Your task to perform on an android device: add a contact Image 0: 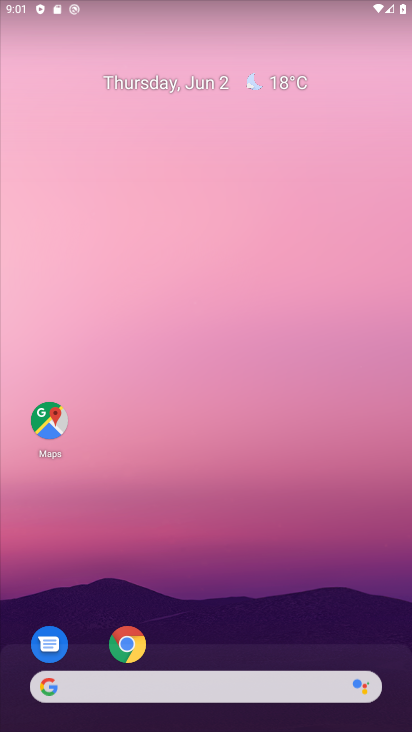
Step 0: drag from (184, 673) to (237, 302)
Your task to perform on an android device: add a contact Image 1: 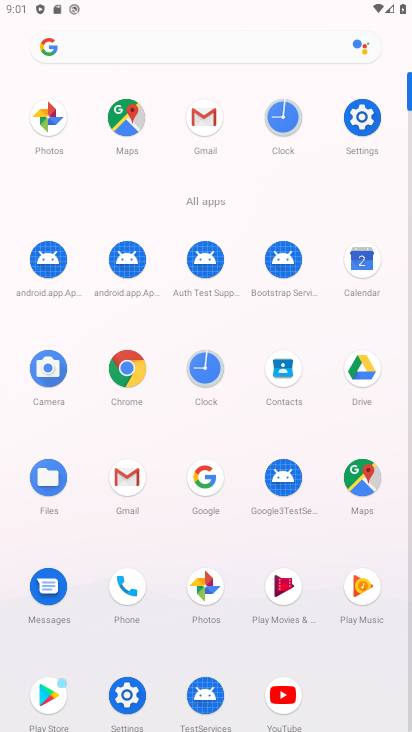
Step 1: click (284, 369)
Your task to perform on an android device: add a contact Image 2: 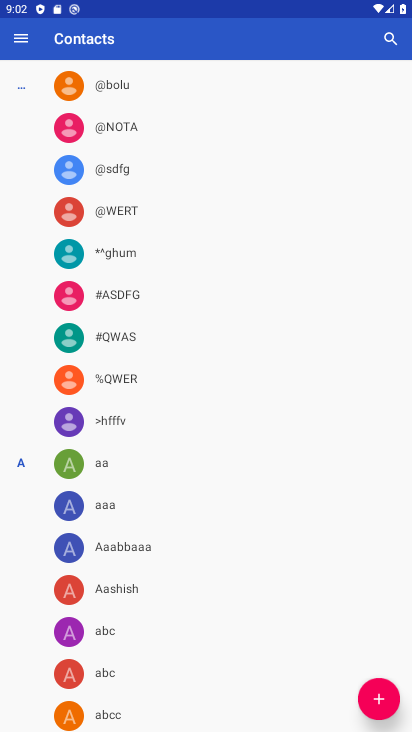
Step 2: click (377, 696)
Your task to perform on an android device: add a contact Image 3: 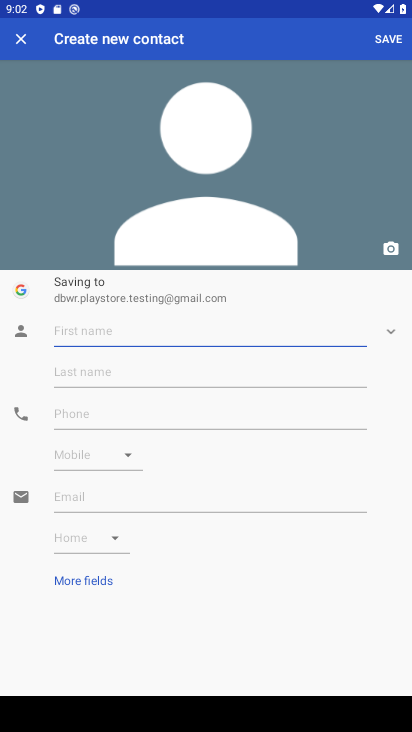
Step 3: type "yuyuy"
Your task to perform on an android device: add a contact Image 4: 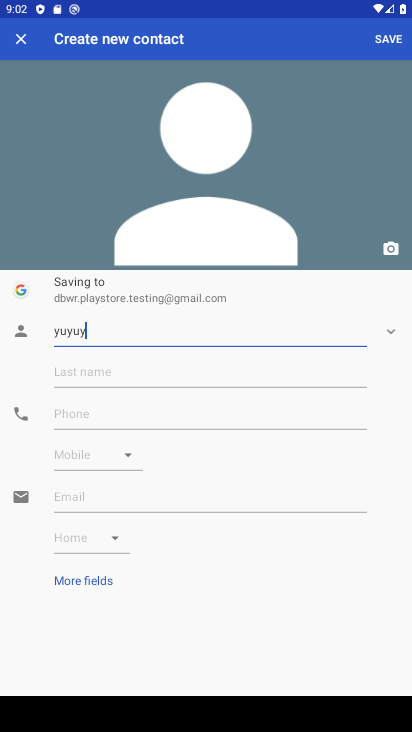
Step 4: click (75, 421)
Your task to perform on an android device: add a contact Image 5: 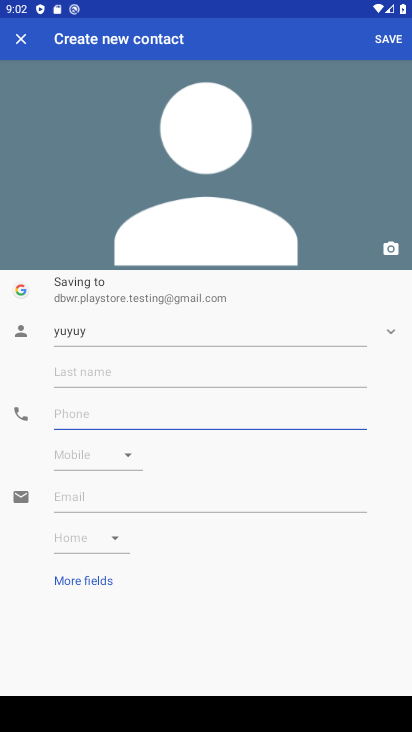
Step 5: type "8888888"
Your task to perform on an android device: add a contact Image 6: 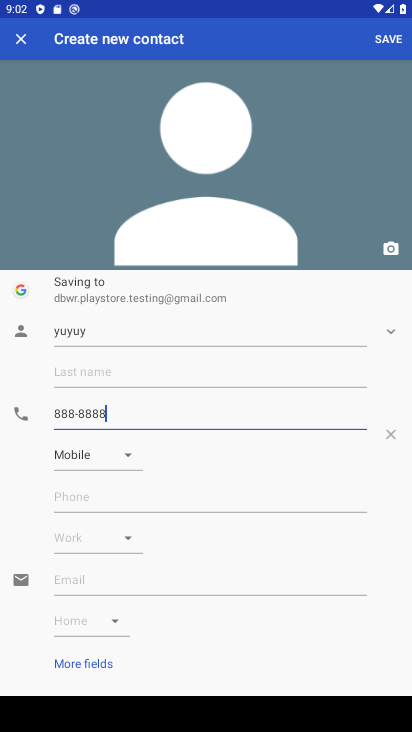
Step 6: click (380, 37)
Your task to perform on an android device: add a contact Image 7: 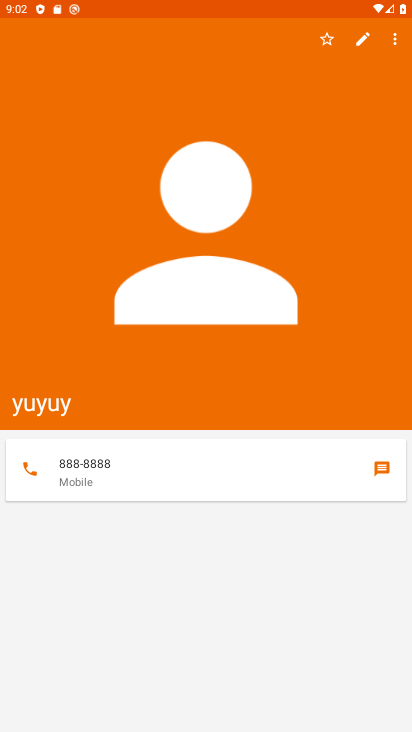
Step 7: task complete